Your task to perform on an android device: Open Youtube and go to the subscriptions tab Image 0: 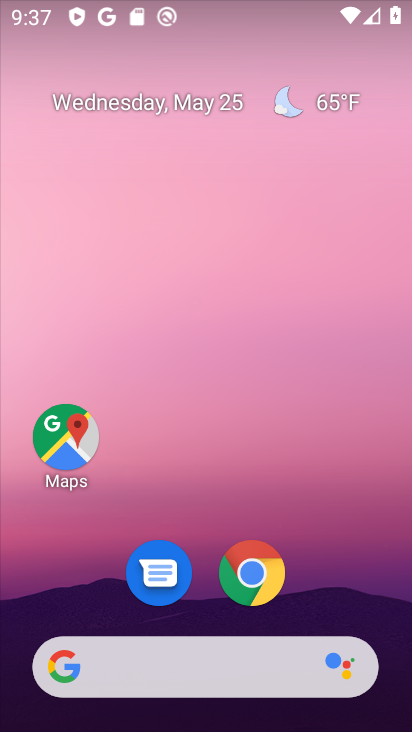
Step 0: drag from (357, 584) to (314, 165)
Your task to perform on an android device: Open Youtube and go to the subscriptions tab Image 1: 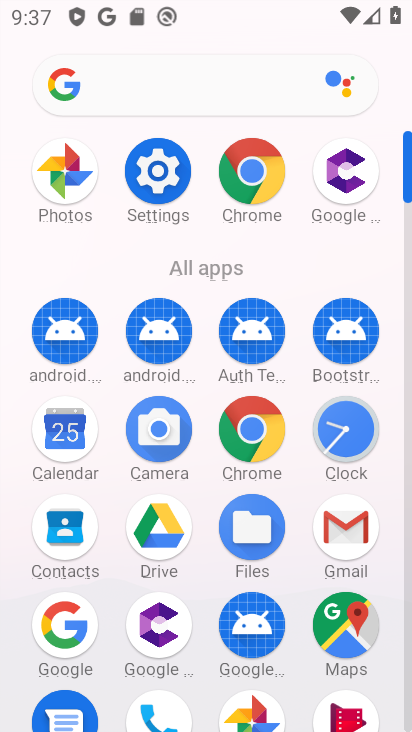
Step 1: drag from (326, 324) to (334, 130)
Your task to perform on an android device: Open Youtube and go to the subscriptions tab Image 2: 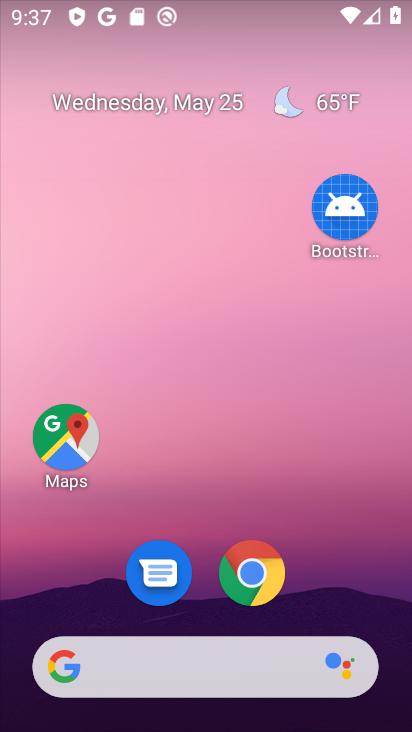
Step 2: drag from (319, 514) to (337, 39)
Your task to perform on an android device: Open Youtube and go to the subscriptions tab Image 3: 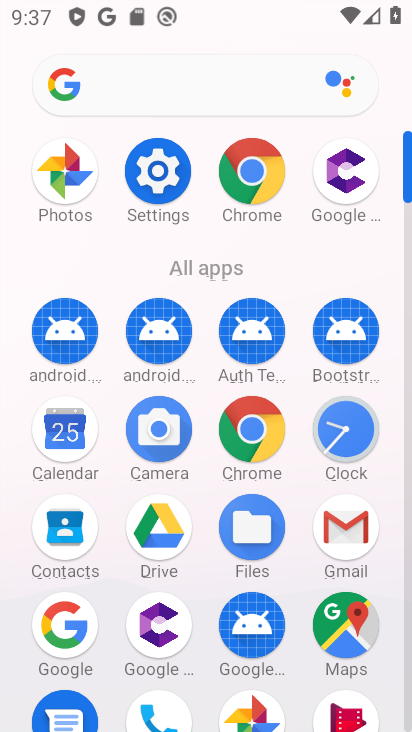
Step 3: drag from (293, 287) to (303, 41)
Your task to perform on an android device: Open Youtube and go to the subscriptions tab Image 4: 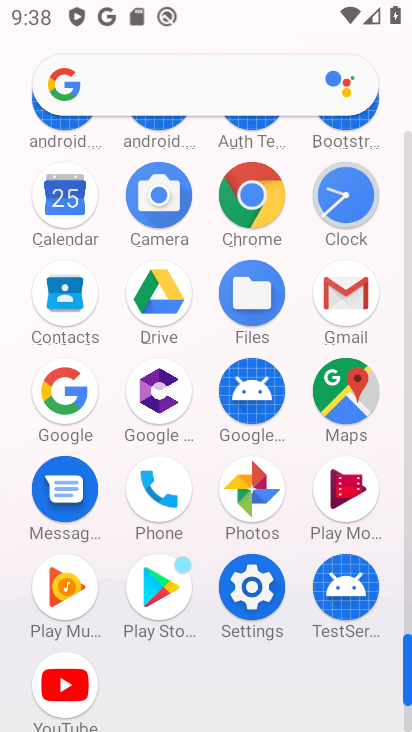
Step 4: click (82, 672)
Your task to perform on an android device: Open Youtube and go to the subscriptions tab Image 5: 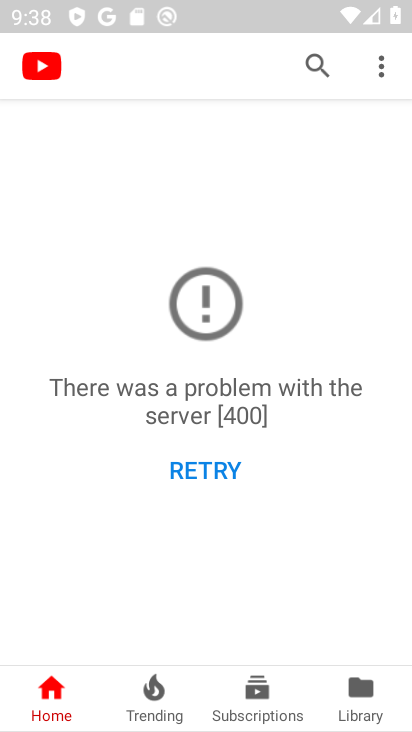
Step 5: click (266, 680)
Your task to perform on an android device: Open Youtube and go to the subscriptions tab Image 6: 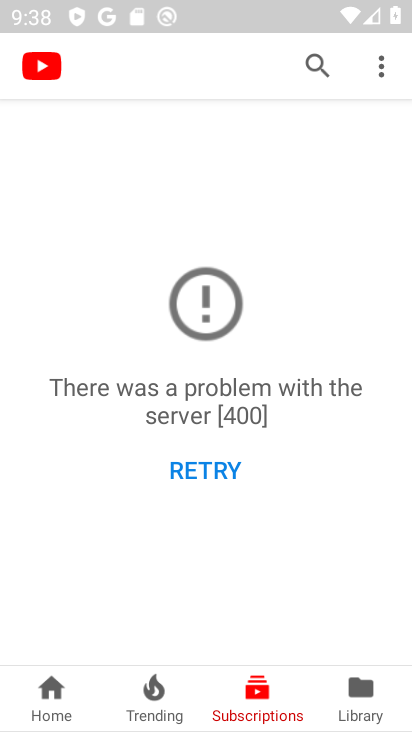
Step 6: task complete